Your task to perform on an android device: Go to notification settings Image 0: 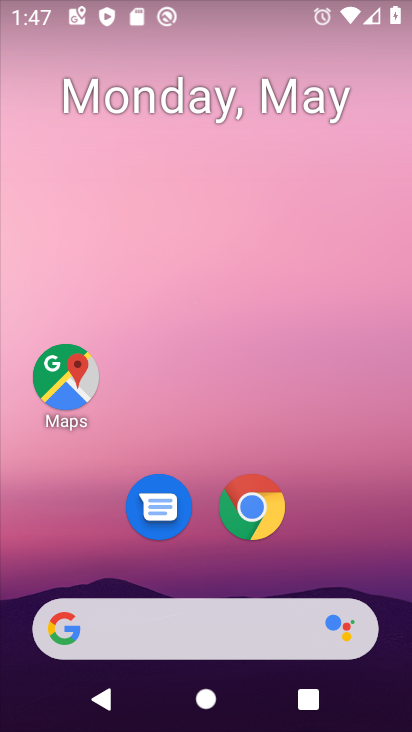
Step 0: drag from (227, 724) to (208, 14)
Your task to perform on an android device: Go to notification settings Image 1: 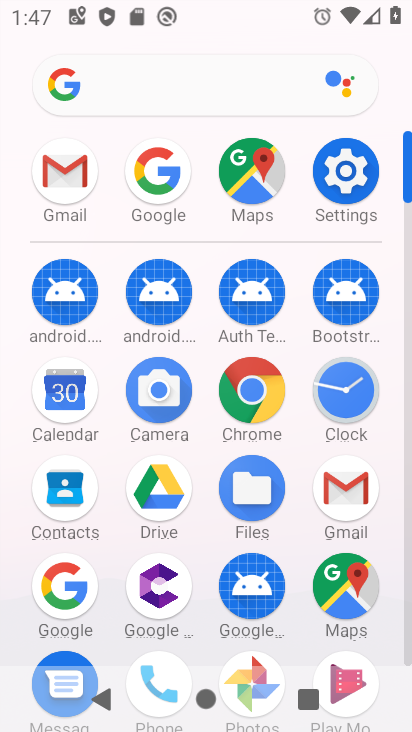
Step 1: click (349, 180)
Your task to perform on an android device: Go to notification settings Image 2: 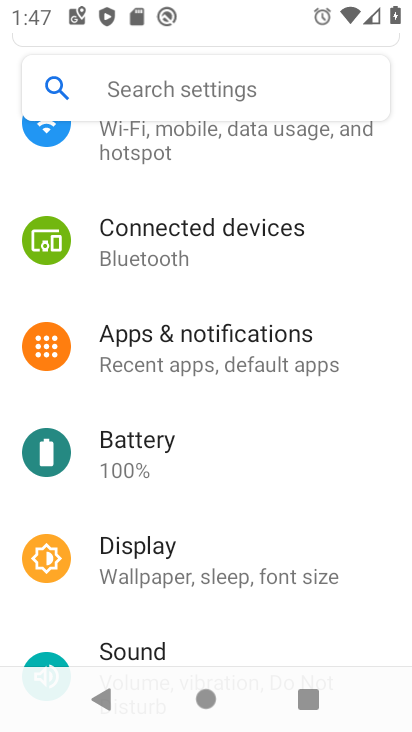
Step 2: click (215, 350)
Your task to perform on an android device: Go to notification settings Image 3: 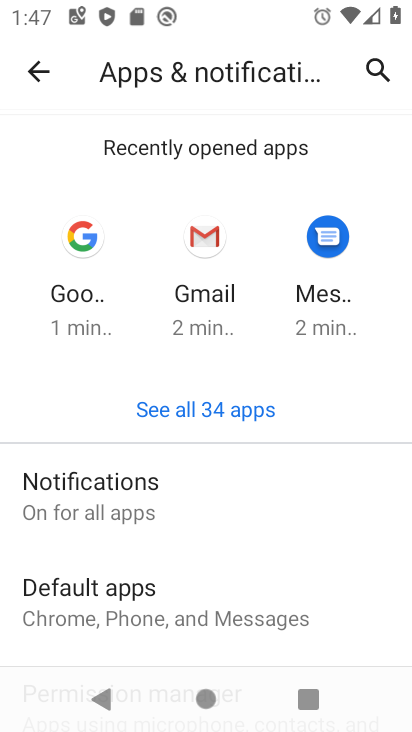
Step 3: click (125, 493)
Your task to perform on an android device: Go to notification settings Image 4: 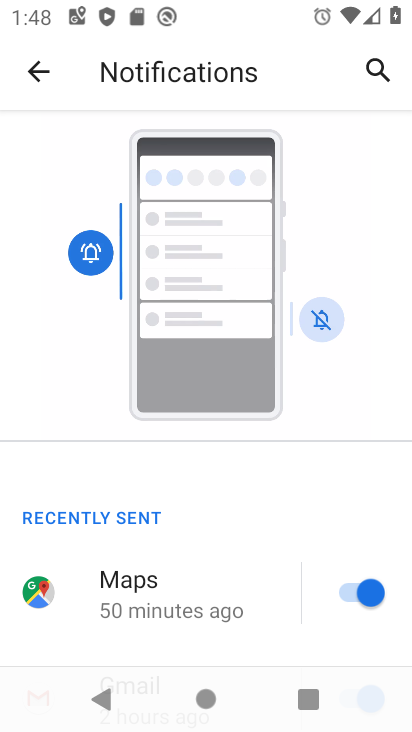
Step 4: task complete